Your task to perform on an android device: Open maps Image 0: 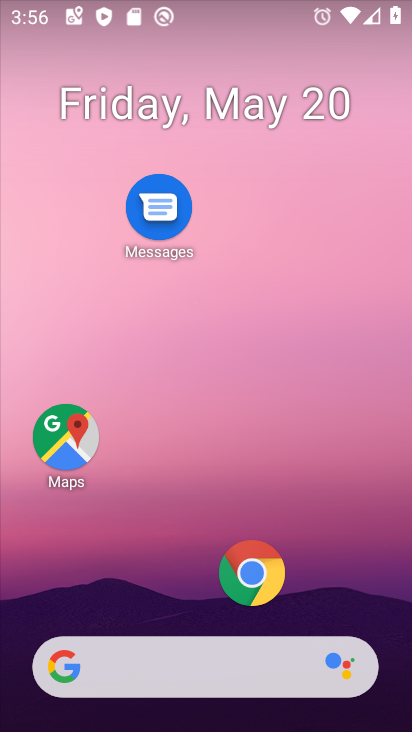
Step 0: drag from (217, 627) to (184, 106)
Your task to perform on an android device: Open maps Image 1: 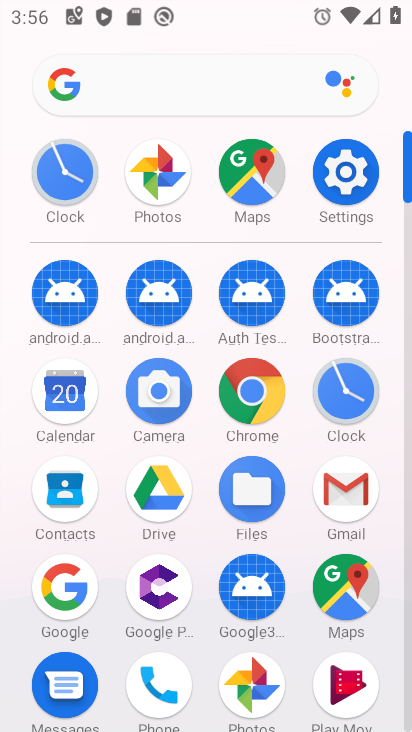
Step 1: click (373, 595)
Your task to perform on an android device: Open maps Image 2: 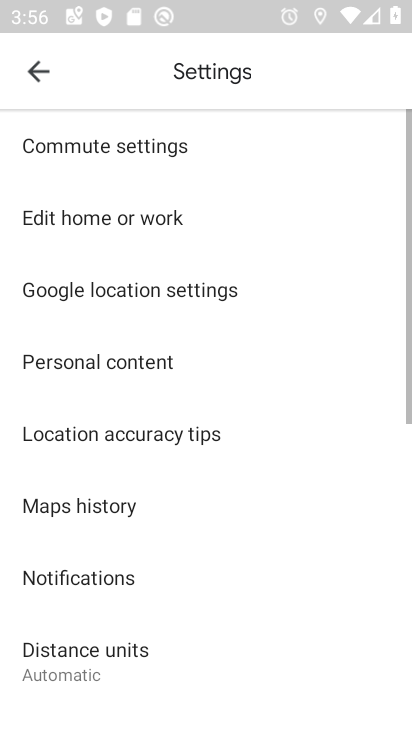
Step 2: click (42, 51)
Your task to perform on an android device: Open maps Image 3: 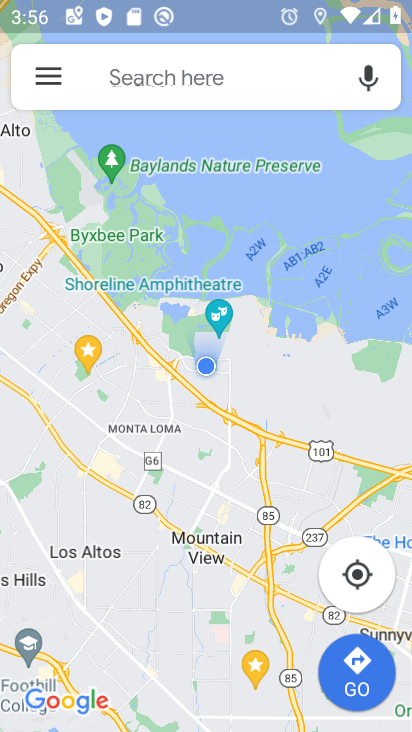
Step 3: task complete